Your task to perform on an android device: Go to battery settings Image 0: 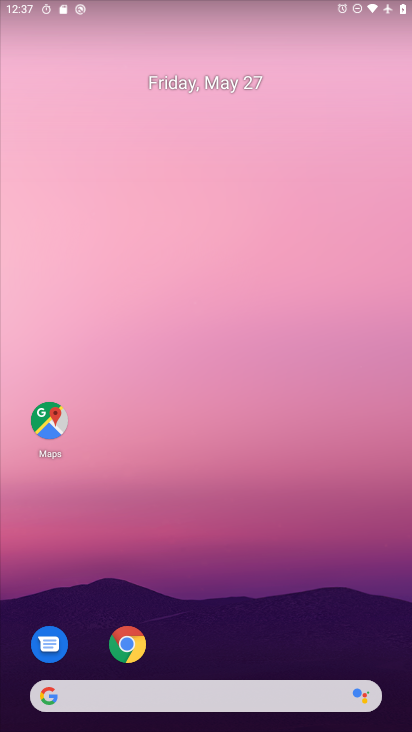
Step 0: drag from (222, 649) to (226, 126)
Your task to perform on an android device: Go to battery settings Image 1: 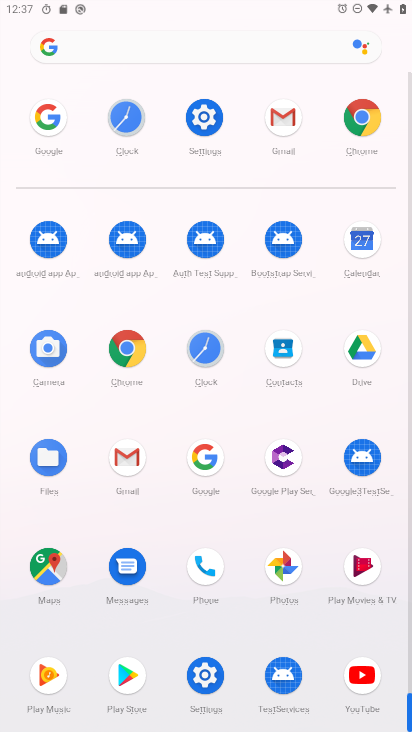
Step 1: click (221, 118)
Your task to perform on an android device: Go to battery settings Image 2: 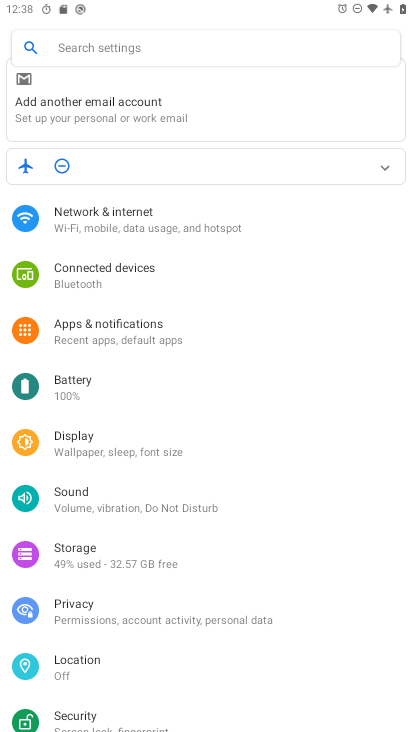
Step 2: click (96, 396)
Your task to perform on an android device: Go to battery settings Image 3: 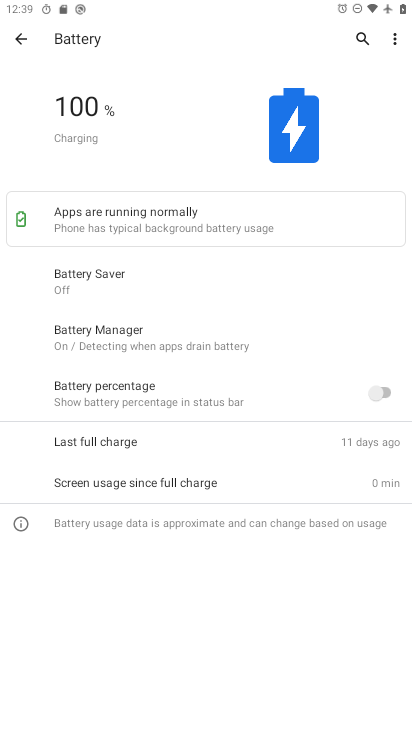
Step 3: task complete